Your task to perform on an android device: Clear all items from cart on amazon. Search for jbl charge 4 on amazon, select the first entry, and add it to the cart. Image 0: 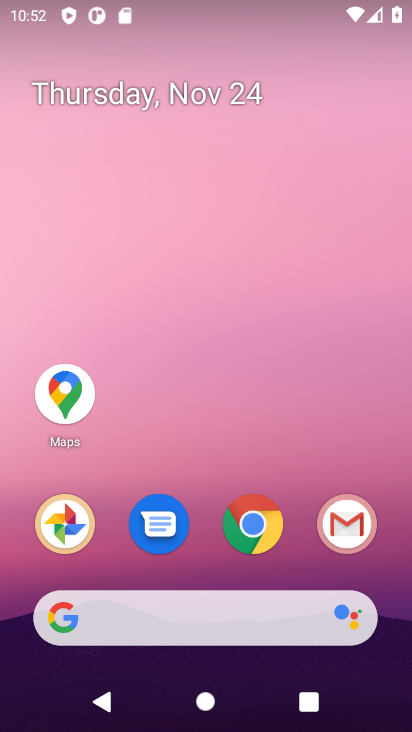
Step 0: click (258, 528)
Your task to perform on an android device: Clear all items from cart on amazon. Search for jbl charge 4 on amazon, select the first entry, and add it to the cart. Image 1: 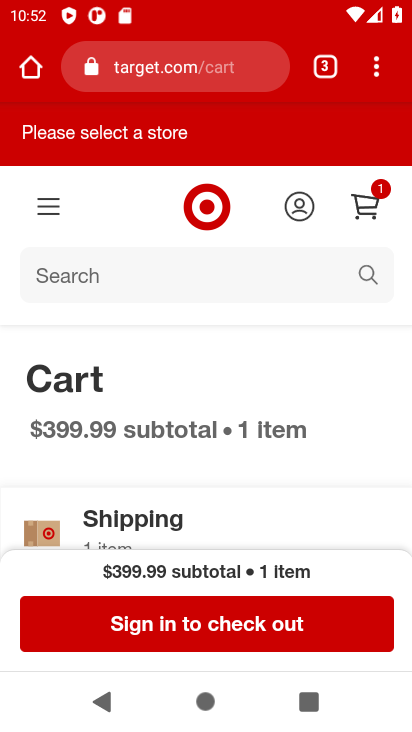
Step 1: click (151, 68)
Your task to perform on an android device: Clear all items from cart on amazon. Search for jbl charge 4 on amazon, select the first entry, and add it to the cart. Image 2: 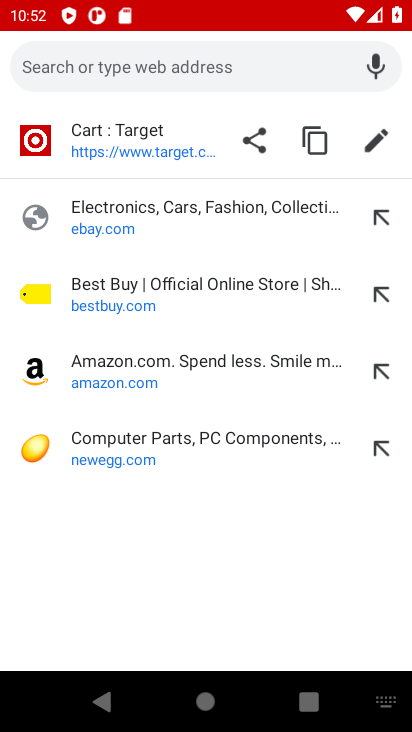
Step 2: click (75, 374)
Your task to perform on an android device: Clear all items from cart on amazon. Search for jbl charge 4 on amazon, select the first entry, and add it to the cart. Image 3: 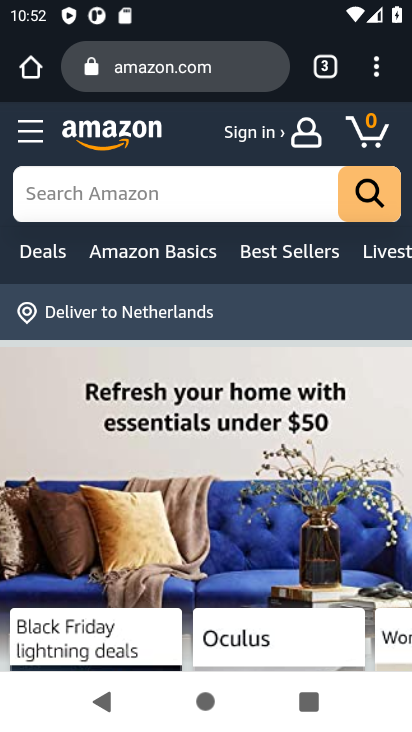
Step 3: click (372, 133)
Your task to perform on an android device: Clear all items from cart on amazon. Search for jbl charge 4 on amazon, select the first entry, and add it to the cart. Image 4: 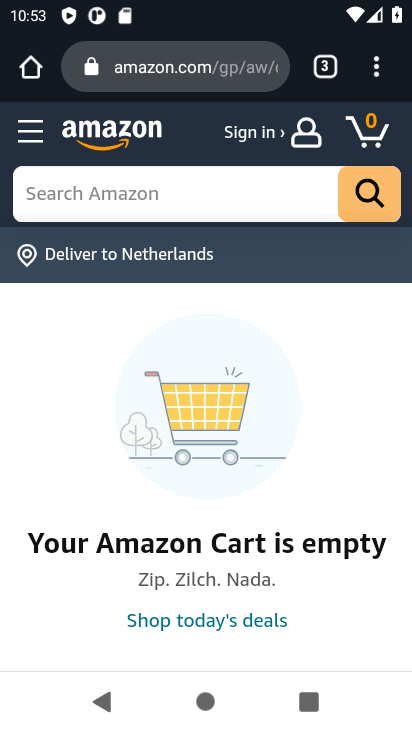
Step 4: click (98, 188)
Your task to perform on an android device: Clear all items from cart on amazon. Search for jbl charge 4 on amazon, select the first entry, and add it to the cart. Image 5: 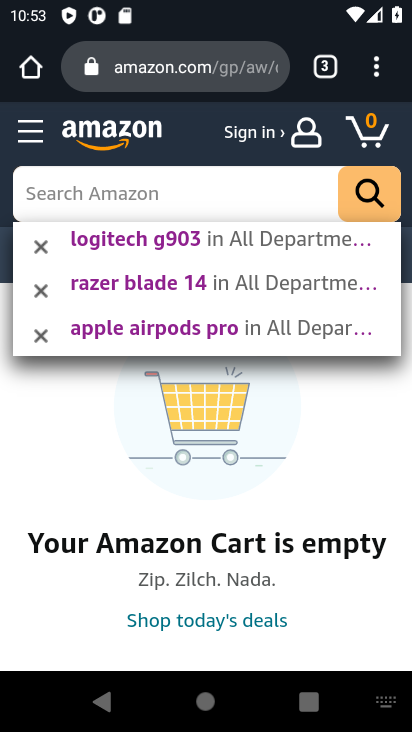
Step 5: type " jbl charge 4"
Your task to perform on an android device: Clear all items from cart on amazon. Search for jbl charge 4 on amazon, select the first entry, and add it to the cart. Image 6: 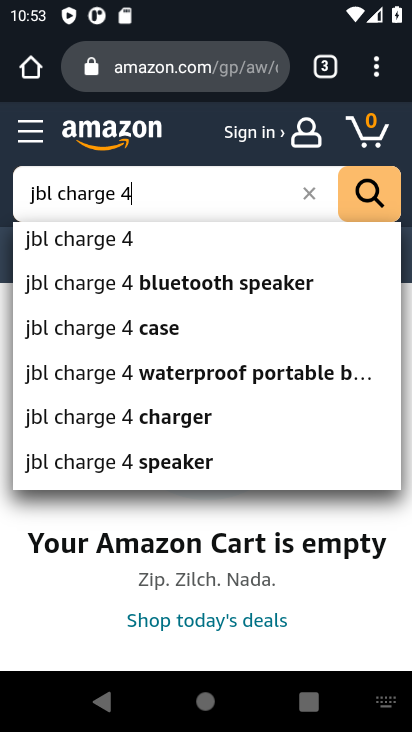
Step 6: click (94, 251)
Your task to perform on an android device: Clear all items from cart on amazon. Search for jbl charge 4 on amazon, select the first entry, and add it to the cart. Image 7: 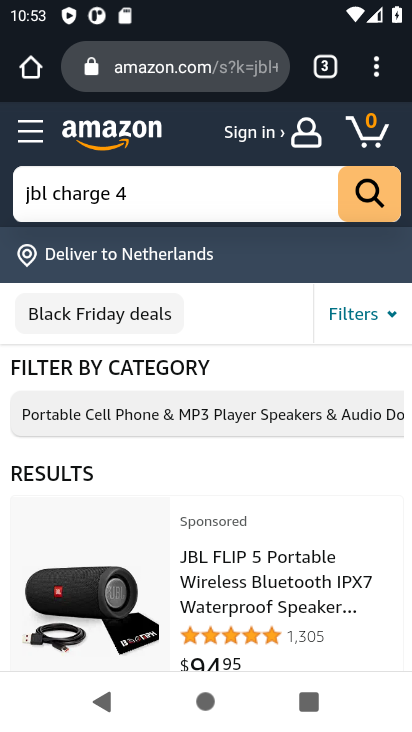
Step 7: task complete